Your task to perform on an android device: Go to Yahoo.com Image 0: 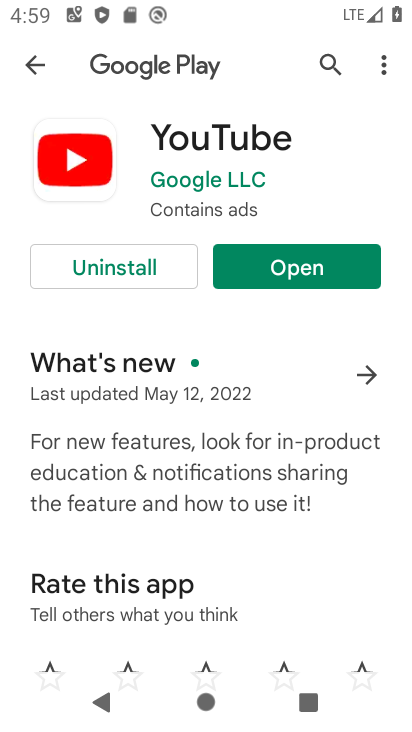
Step 0: click (70, 397)
Your task to perform on an android device: Go to Yahoo.com Image 1: 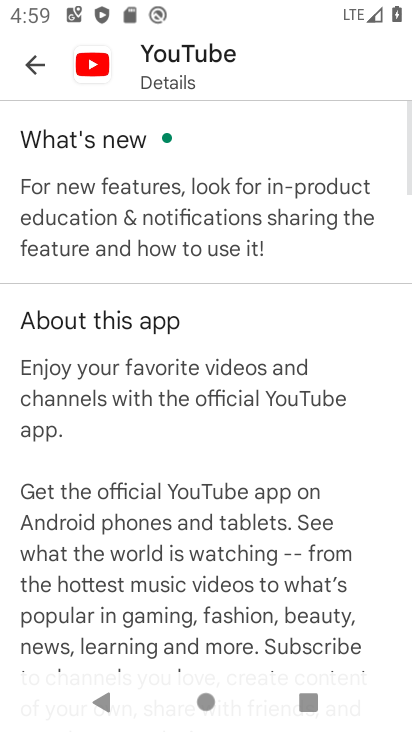
Step 1: press home button
Your task to perform on an android device: Go to Yahoo.com Image 2: 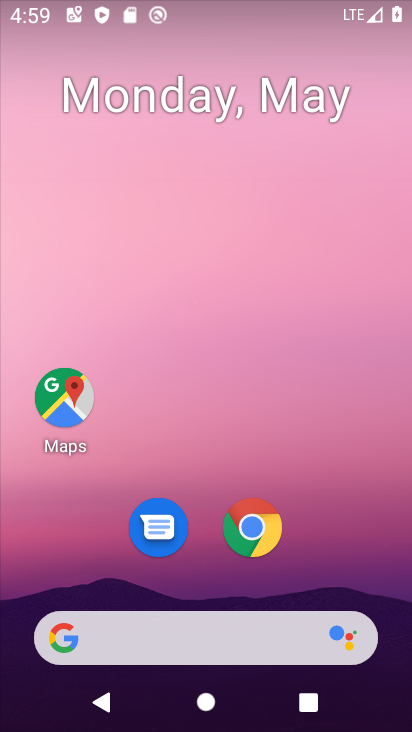
Step 2: click (247, 534)
Your task to perform on an android device: Go to Yahoo.com Image 3: 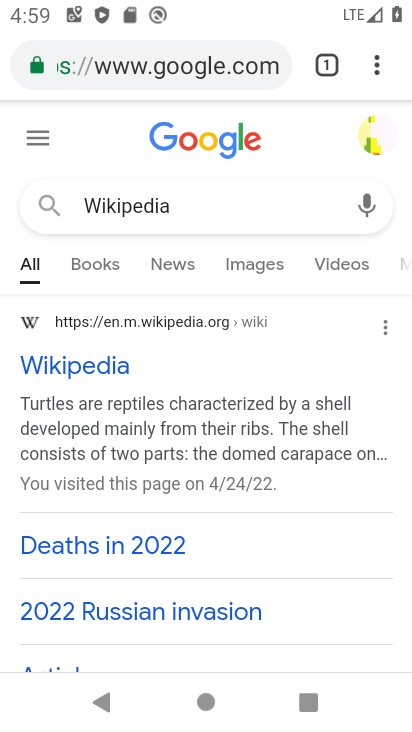
Step 3: click (279, 58)
Your task to perform on an android device: Go to Yahoo.com Image 4: 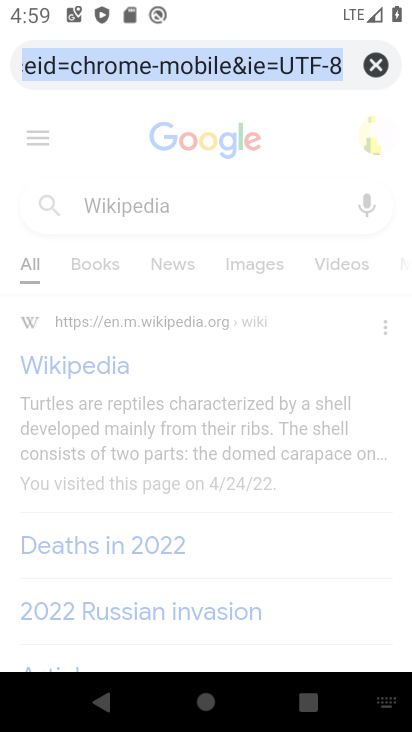
Step 4: click (372, 68)
Your task to perform on an android device: Go to Yahoo.com Image 5: 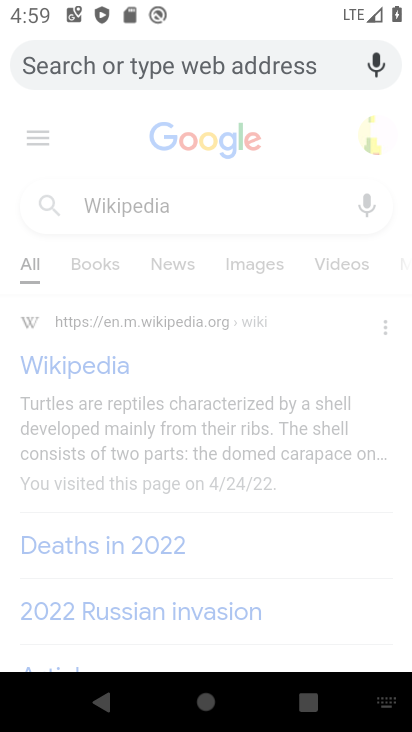
Step 5: type "Yahoo.com"
Your task to perform on an android device: Go to Yahoo.com Image 6: 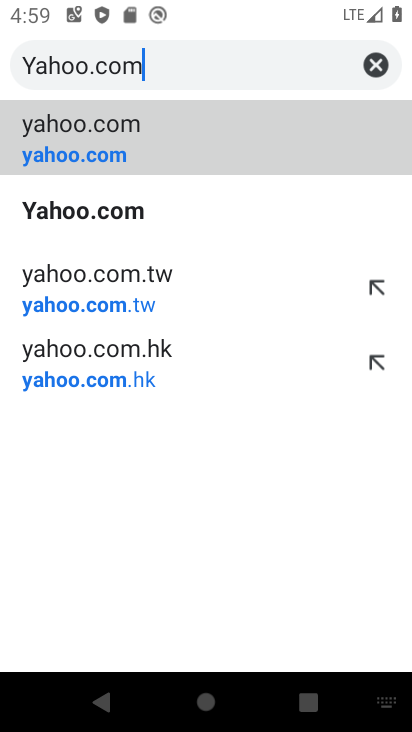
Step 6: click (68, 213)
Your task to perform on an android device: Go to Yahoo.com Image 7: 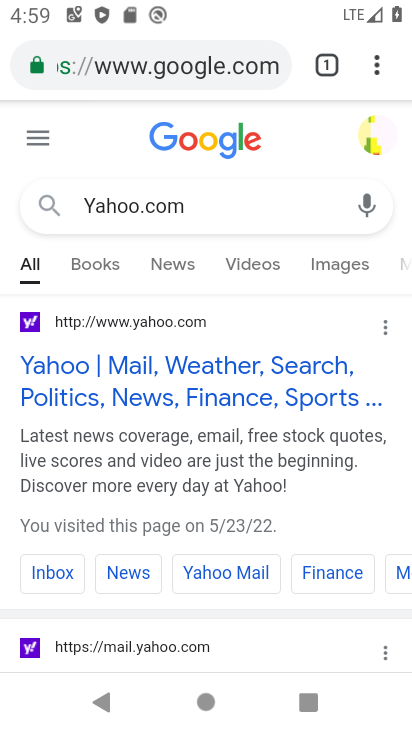
Step 7: task complete